Your task to perform on an android device: Empty the shopping cart on target.com. Search for duracell triple a on target.com, select the first entry, and add it to the cart. Image 0: 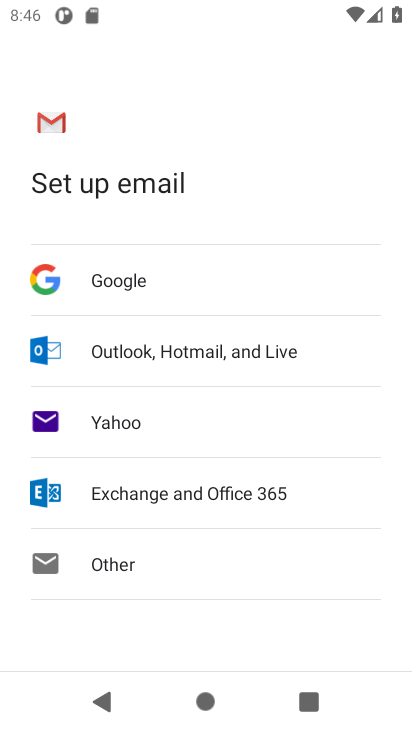
Step 0: press home button
Your task to perform on an android device: Empty the shopping cart on target.com. Search for duracell triple a on target.com, select the first entry, and add it to the cart. Image 1: 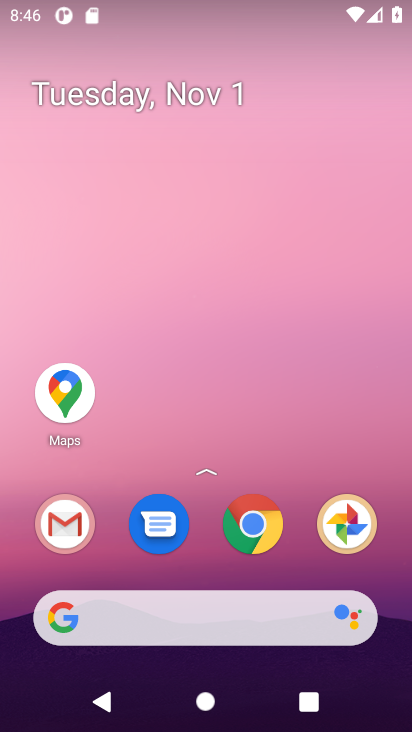
Step 1: click (107, 607)
Your task to perform on an android device: Empty the shopping cart on target.com. Search for duracell triple a on target.com, select the first entry, and add it to the cart. Image 2: 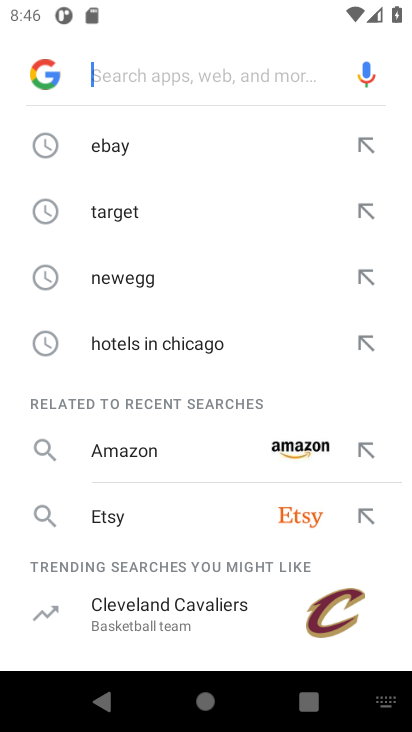
Step 2: click (116, 214)
Your task to perform on an android device: Empty the shopping cart on target.com. Search for duracell triple a on target.com, select the first entry, and add it to the cart. Image 3: 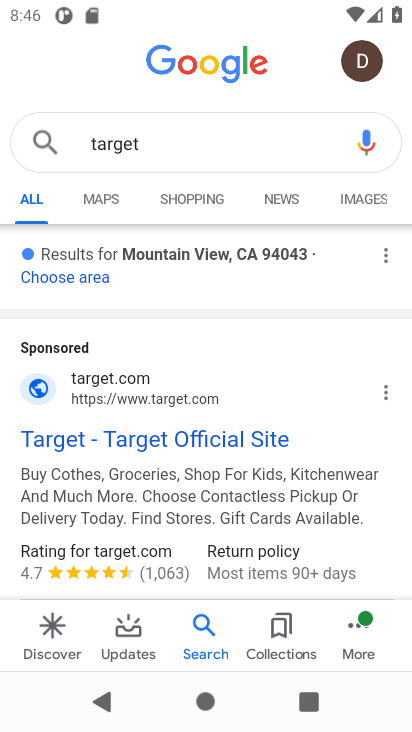
Step 3: click (130, 442)
Your task to perform on an android device: Empty the shopping cart on target.com. Search for duracell triple a on target.com, select the first entry, and add it to the cart. Image 4: 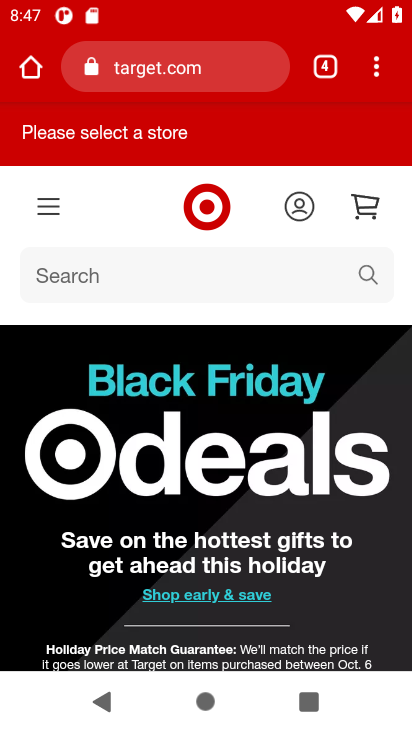
Step 4: click (367, 205)
Your task to perform on an android device: Empty the shopping cart on target.com. Search for duracell triple a on target.com, select the first entry, and add it to the cart. Image 5: 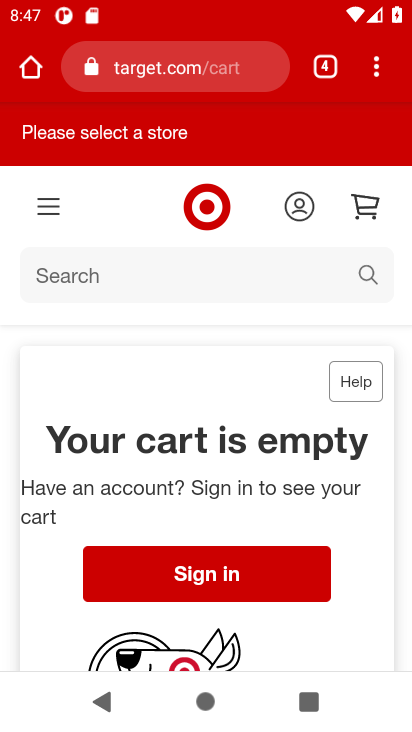
Step 5: click (68, 276)
Your task to perform on an android device: Empty the shopping cart on target.com. Search for duracell triple a on target.com, select the first entry, and add it to the cart. Image 6: 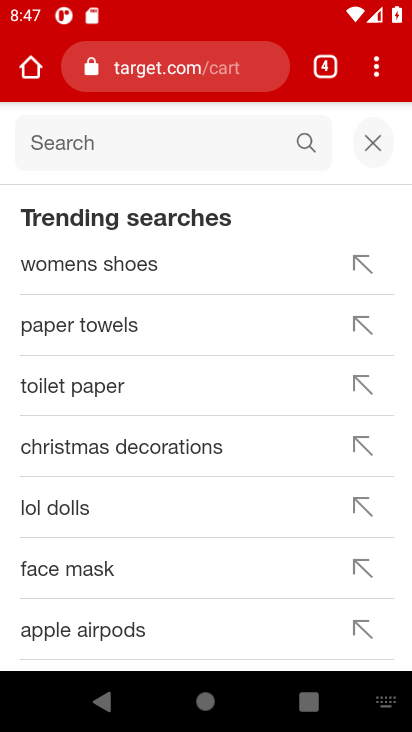
Step 6: type "duracell triple a"
Your task to perform on an android device: Empty the shopping cart on target.com. Search for duracell triple a on target.com, select the first entry, and add it to the cart. Image 7: 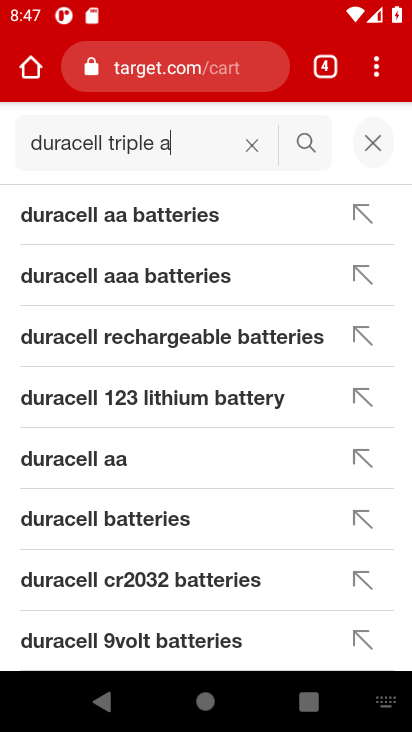
Step 7: press enter
Your task to perform on an android device: Empty the shopping cart on target.com. Search for duracell triple a on target.com, select the first entry, and add it to the cart. Image 8: 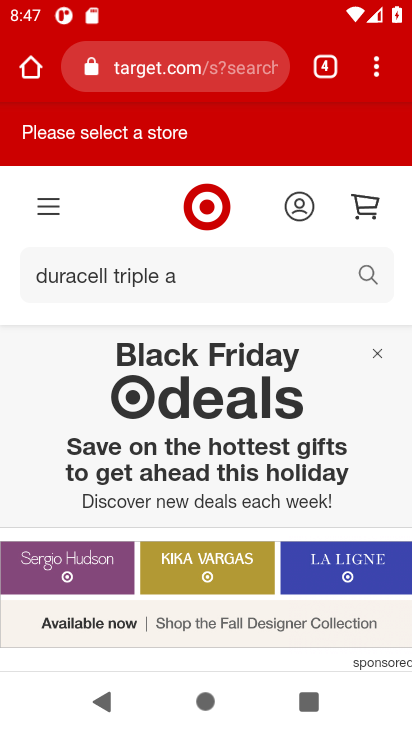
Step 8: drag from (266, 581) to (234, 222)
Your task to perform on an android device: Empty the shopping cart on target.com. Search for duracell triple a on target.com, select the first entry, and add it to the cart. Image 9: 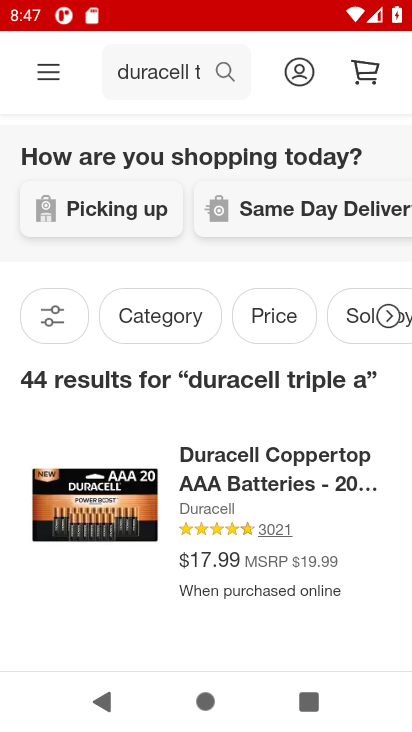
Step 9: drag from (251, 554) to (247, 282)
Your task to perform on an android device: Empty the shopping cart on target.com. Search for duracell triple a on target.com, select the first entry, and add it to the cart. Image 10: 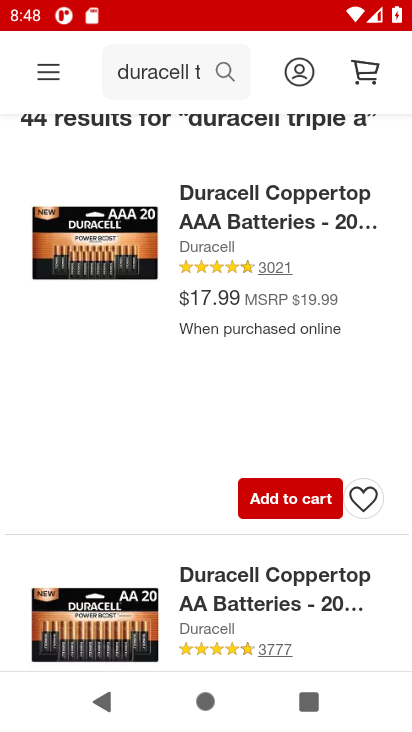
Step 10: click (280, 500)
Your task to perform on an android device: Empty the shopping cart on target.com. Search for duracell triple a on target.com, select the first entry, and add it to the cart. Image 11: 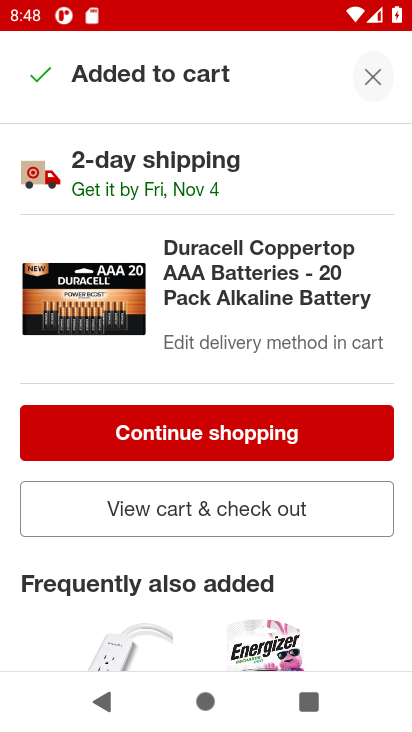
Step 11: task complete